Your task to perform on an android device: Open Google Chrome and click the shortcut for Amazon.com Image 0: 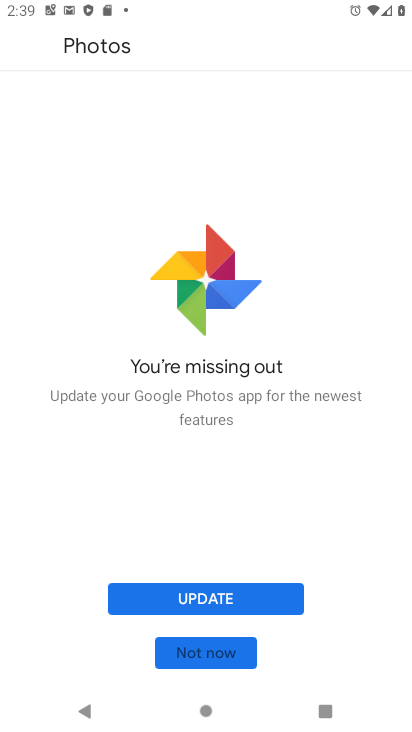
Step 0: press home button
Your task to perform on an android device: Open Google Chrome and click the shortcut for Amazon.com Image 1: 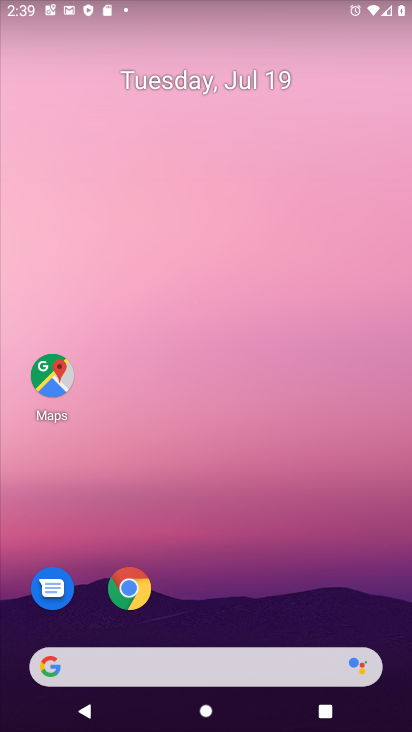
Step 1: drag from (401, 621) to (199, 75)
Your task to perform on an android device: Open Google Chrome and click the shortcut for Amazon.com Image 2: 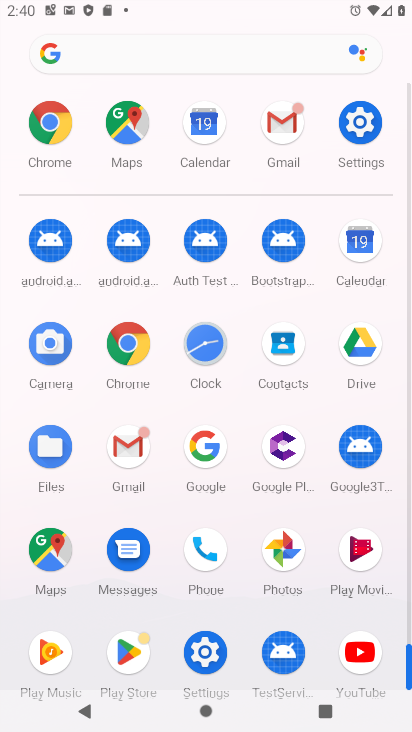
Step 2: click (124, 332)
Your task to perform on an android device: Open Google Chrome and click the shortcut for Amazon.com Image 3: 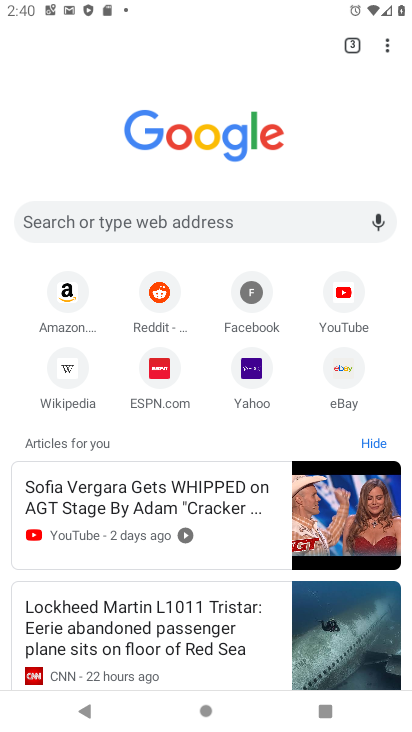
Step 3: click (66, 294)
Your task to perform on an android device: Open Google Chrome and click the shortcut for Amazon.com Image 4: 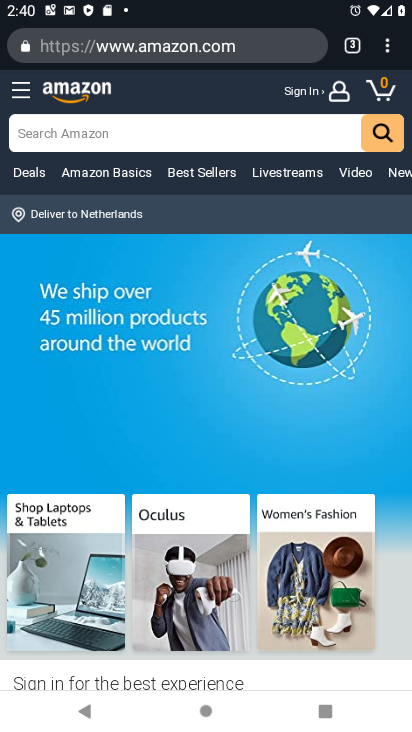
Step 4: task complete